Your task to perform on an android device: What's on my calendar tomorrow? Image 0: 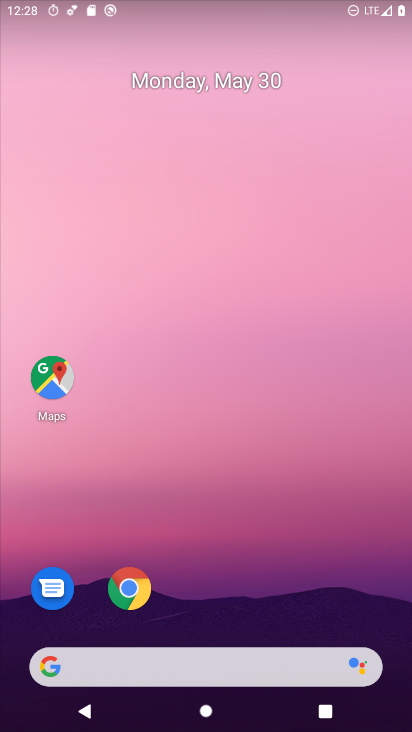
Step 0: drag from (301, 603) to (243, 178)
Your task to perform on an android device: What's on my calendar tomorrow? Image 1: 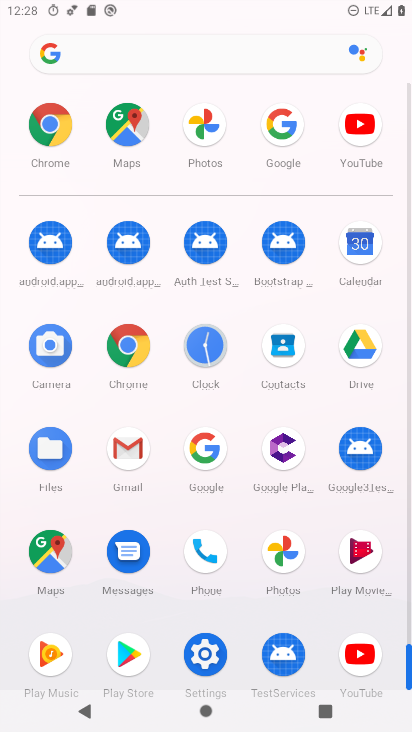
Step 1: click (363, 255)
Your task to perform on an android device: What's on my calendar tomorrow? Image 2: 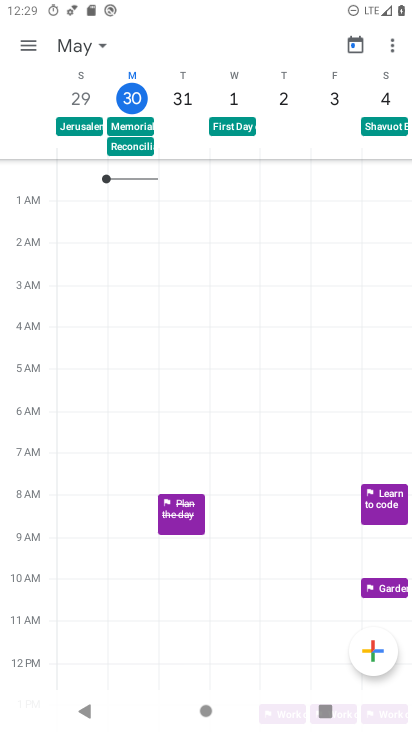
Step 2: click (181, 102)
Your task to perform on an android device: What's on my calendar tomorrow? Image 3: 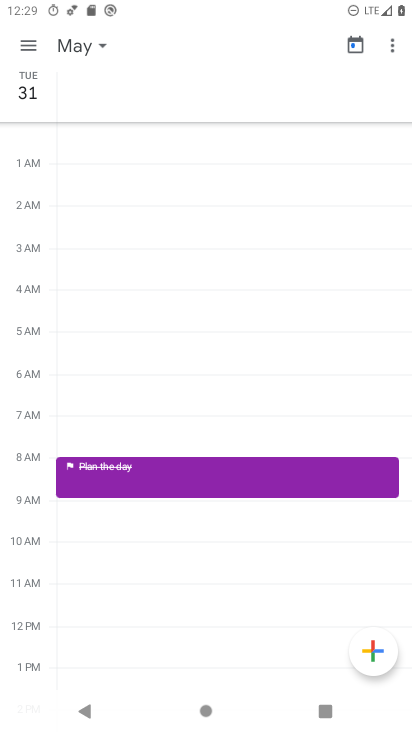
Step 3: task complete